Your task to perform on an android device: See recent photos Image 0: 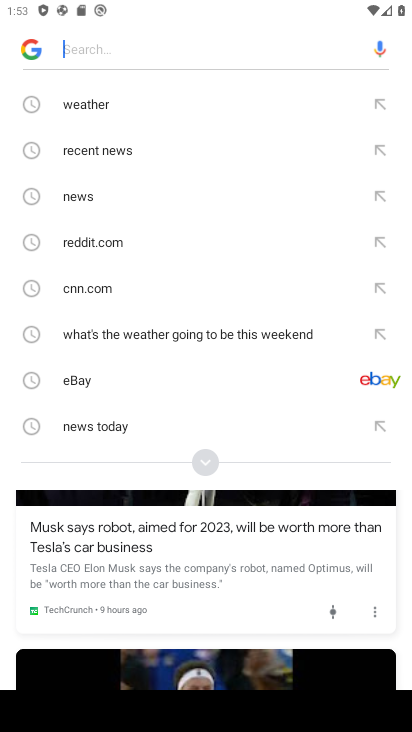
Step 0: press home button
Your task to perform on an android device: See recent photos Image 1: 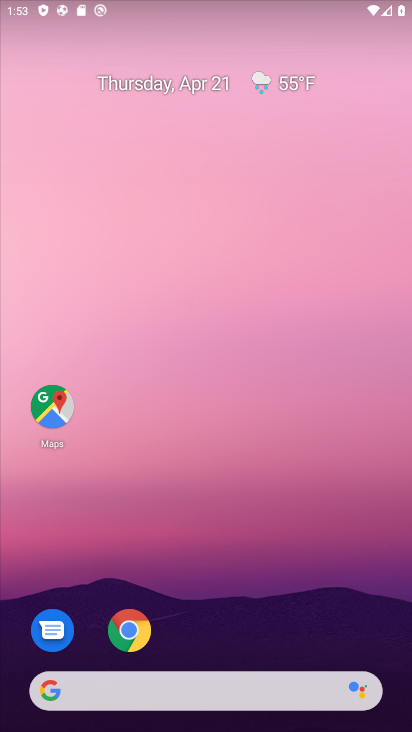
Step 1: drag from (268, 598) to (300, 135)
Your task to perform on an android device: See recent photos Image 2: 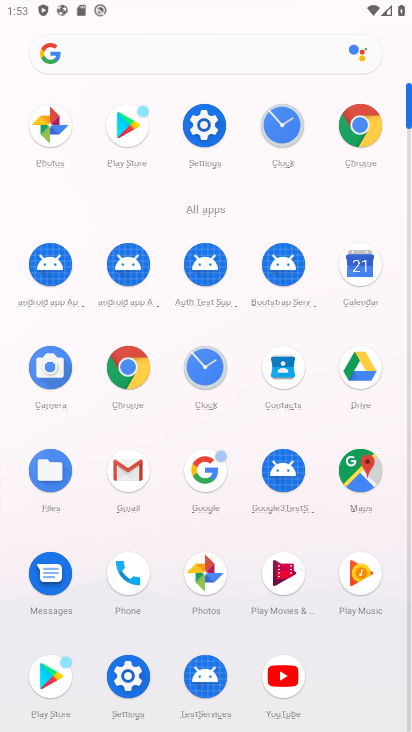
Step 2: click (54, 138)
Your task to perform on an android device: See recent photos Image 3: 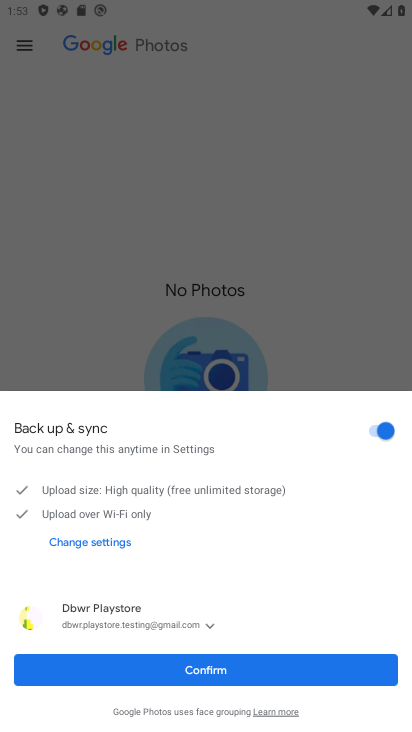
Step 3: click (233, 664)
Your task to perform on an android device: See recent photos Image 4: 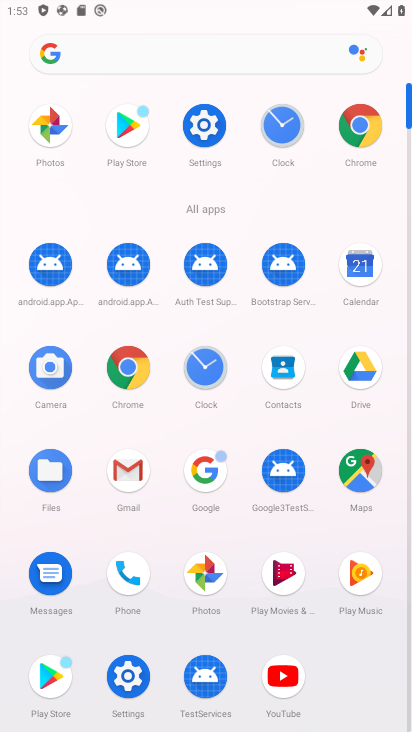
Step 4: click (213, 581)
Your task to perform on an android device: See recent photos Image 5: 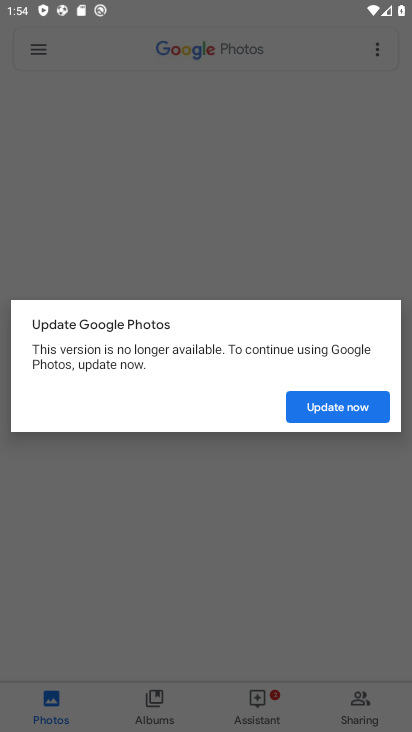
Step 5: click (347, 410)
Your task to perform on an android device: See recent photos Image 6: 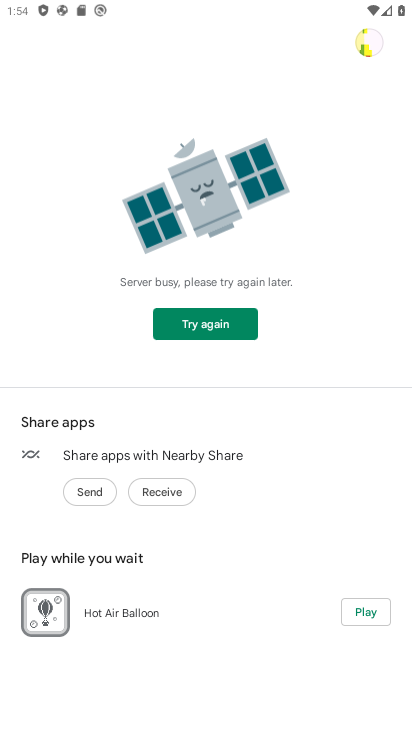
Step 6: task complete